Your task to perform on an android device: Go to Yahoo.com Image 0: 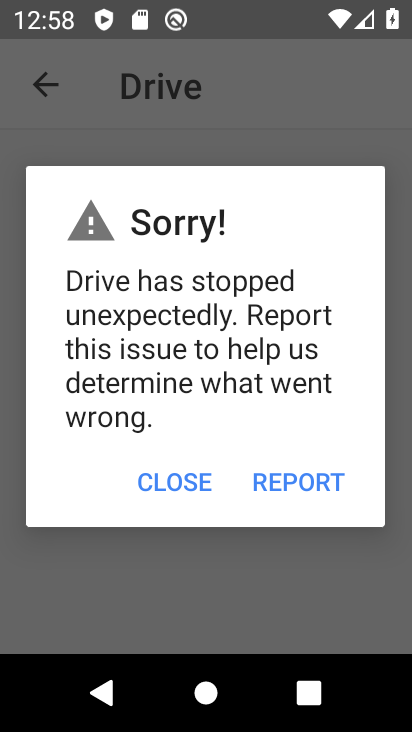
Step 0: press home button
Your task to perform on an android device: Go to Yahoo.com Image 1: 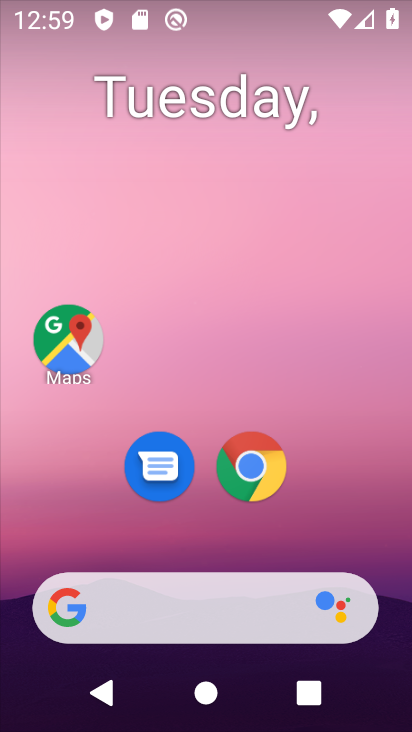
Step 1: click (250, 598)
Your task to perform on an android device: Go to Yahoo.com Image 2: 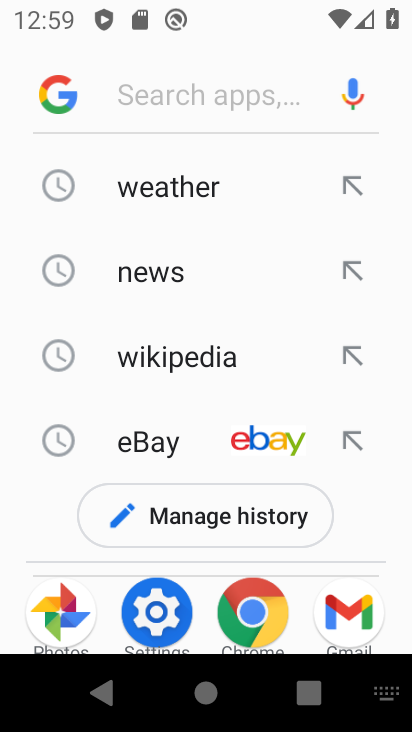
Step 2: type "yahoo.com"
Your task to perform on an android device: Go to Yahoo.com Image 3: 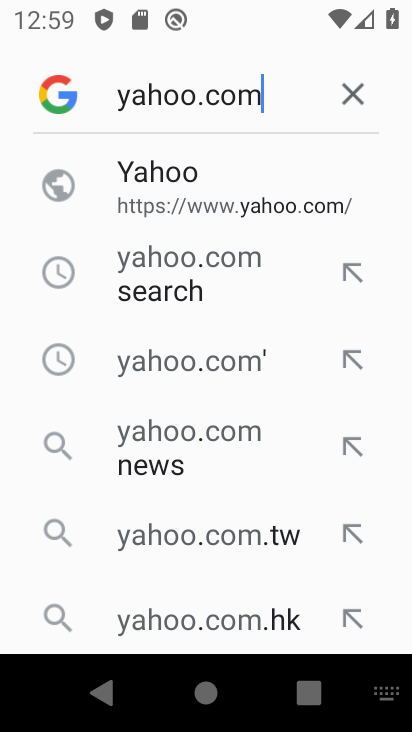
Step 3: click (138, 164)
Your task to perform on an android device: Go to Yahoo.com Image 4: 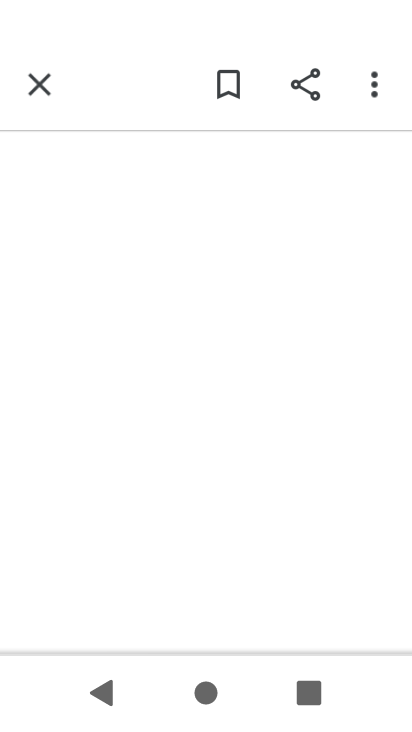
Step 4: task complete